Your task to perform on an android device: Empty the shopping cart on target. Search for razer nari on target, select the first entry, add it to the cart, then select checkout. Image 0: 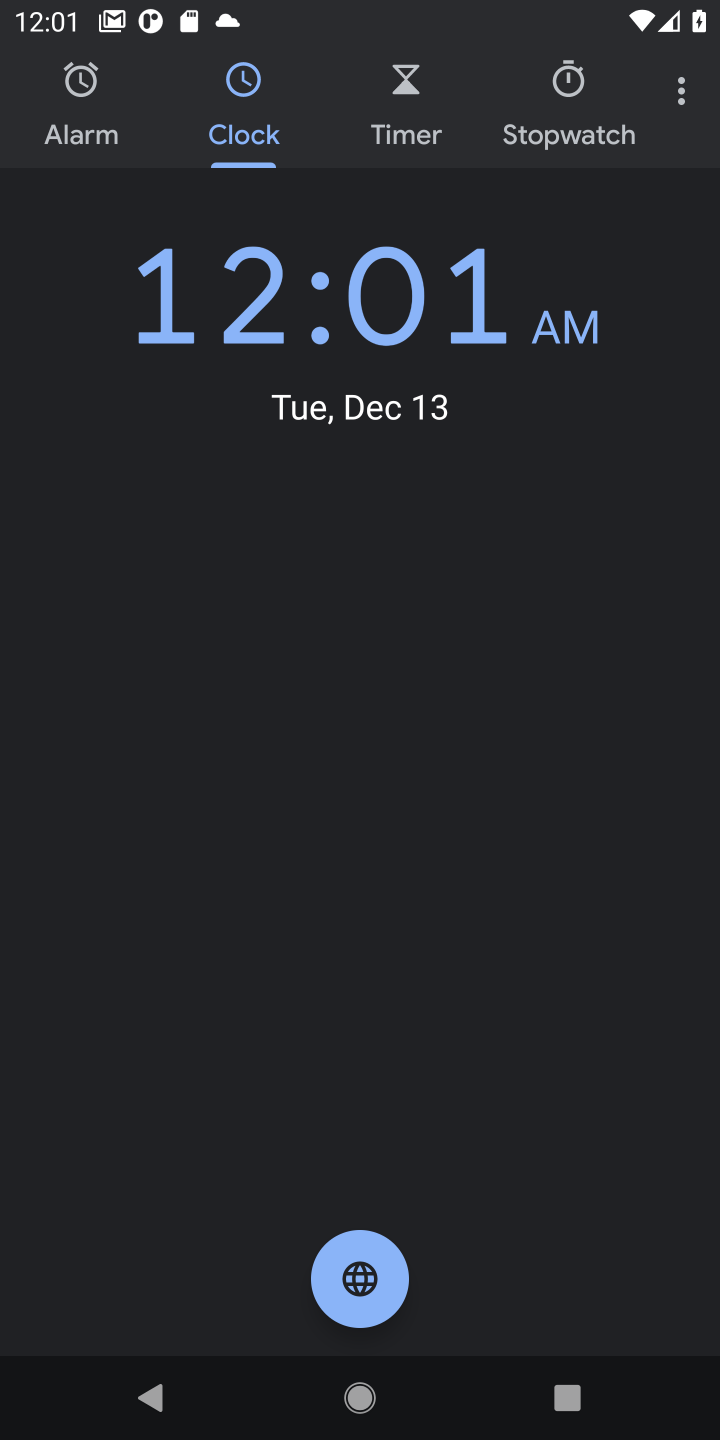
Step 0: press home button
Your task to perform on an android device: Empty the shopping cart on target. Search for razer nari on target, select the first entry, add it to the cart, then select checkout. Image 1: 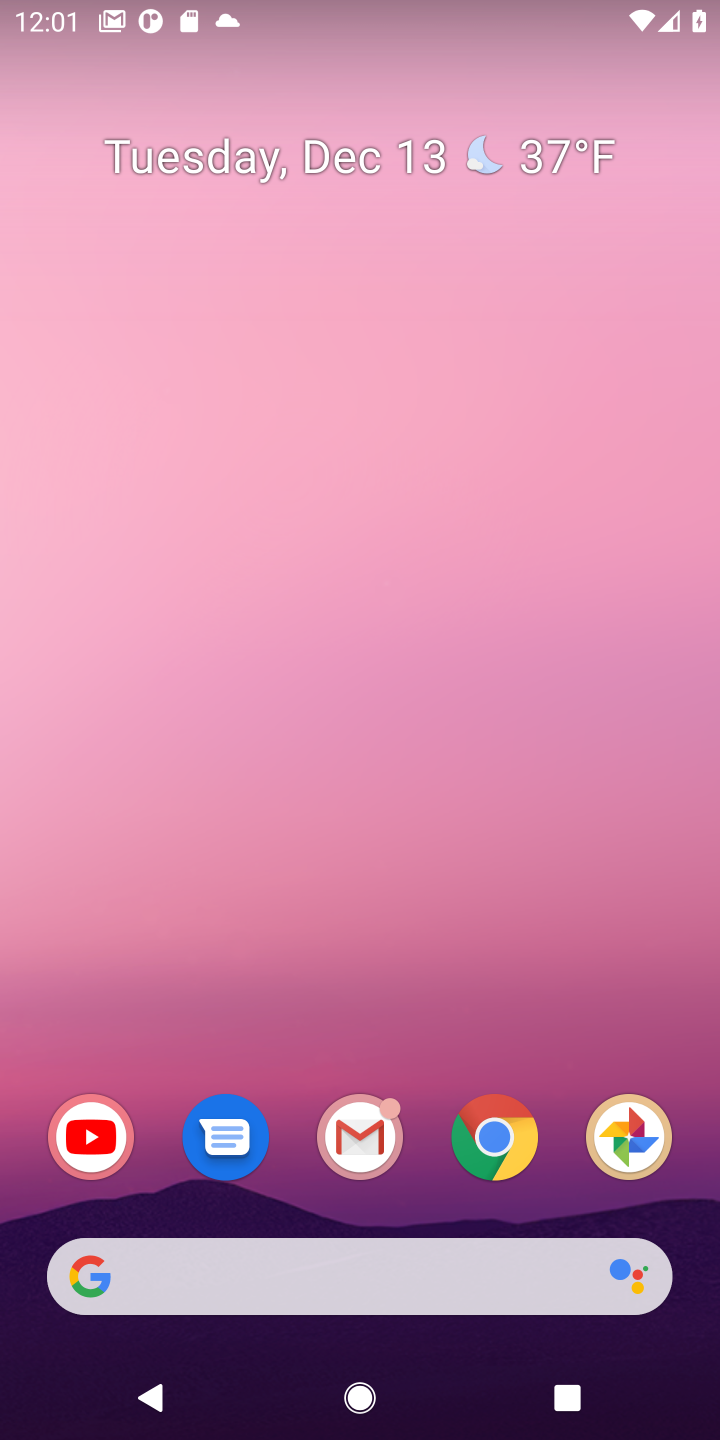
Step 1: click (458, 1255)
Your task to perform on an android device: Empty the shopping cart on target. Search for razer nari on target, select the first entry, add it to the cart, then select checkout. Image 2: 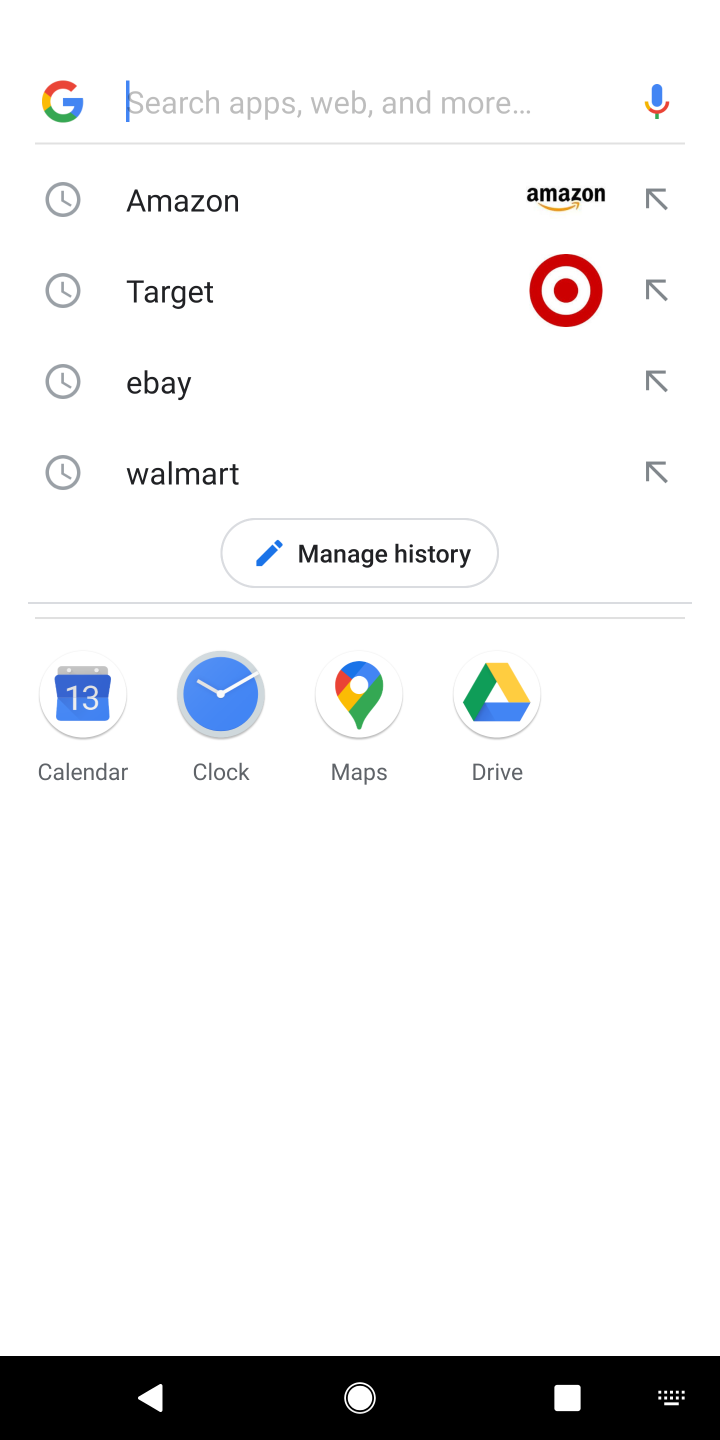
Step 2: click (224, 299)
Your task to perform on an android device: Empty the shopping cart on target. Search for razer nari on target, select the first entry, add it to the cart, then select checkout. Image 3: 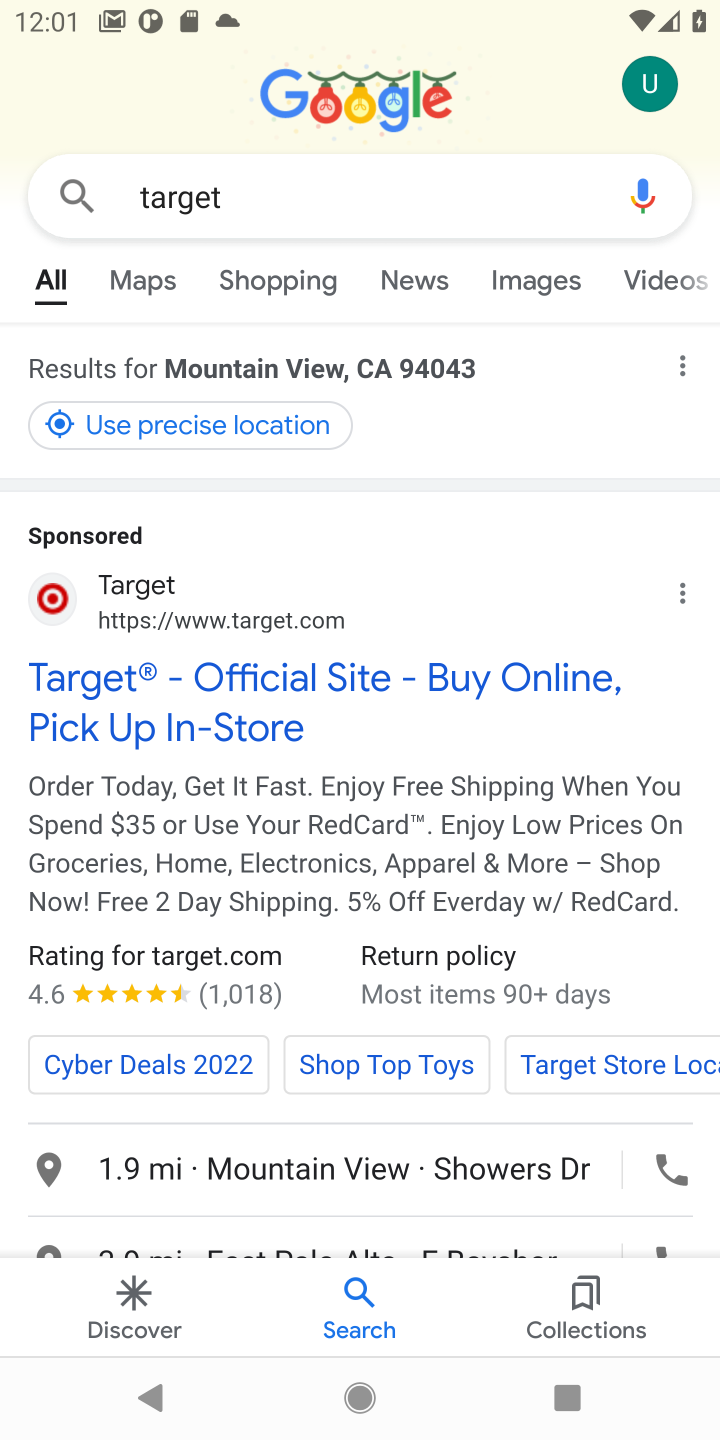
Step 3: click (89, 683)
Your task to perform on an android device: Empty the shopping cart on target. Search for razer nari on target, select the first entry, add it to the cart, then select checkout. Image 4: 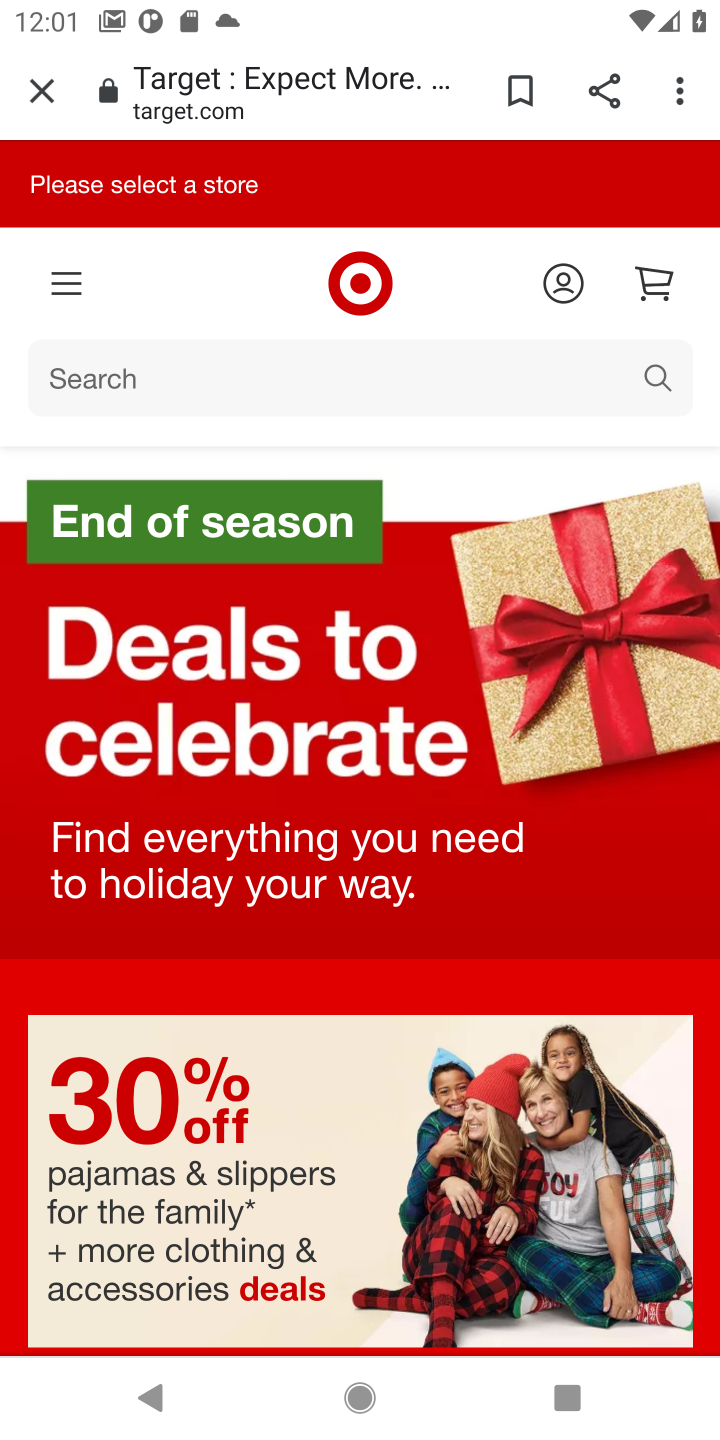
Step 4: click (169, 397)
Your task to perform on an android device: Empty the shopping cart on target. Search for razer nari on target, select the first entry, add it to the cart, then select checkout. Image 5: 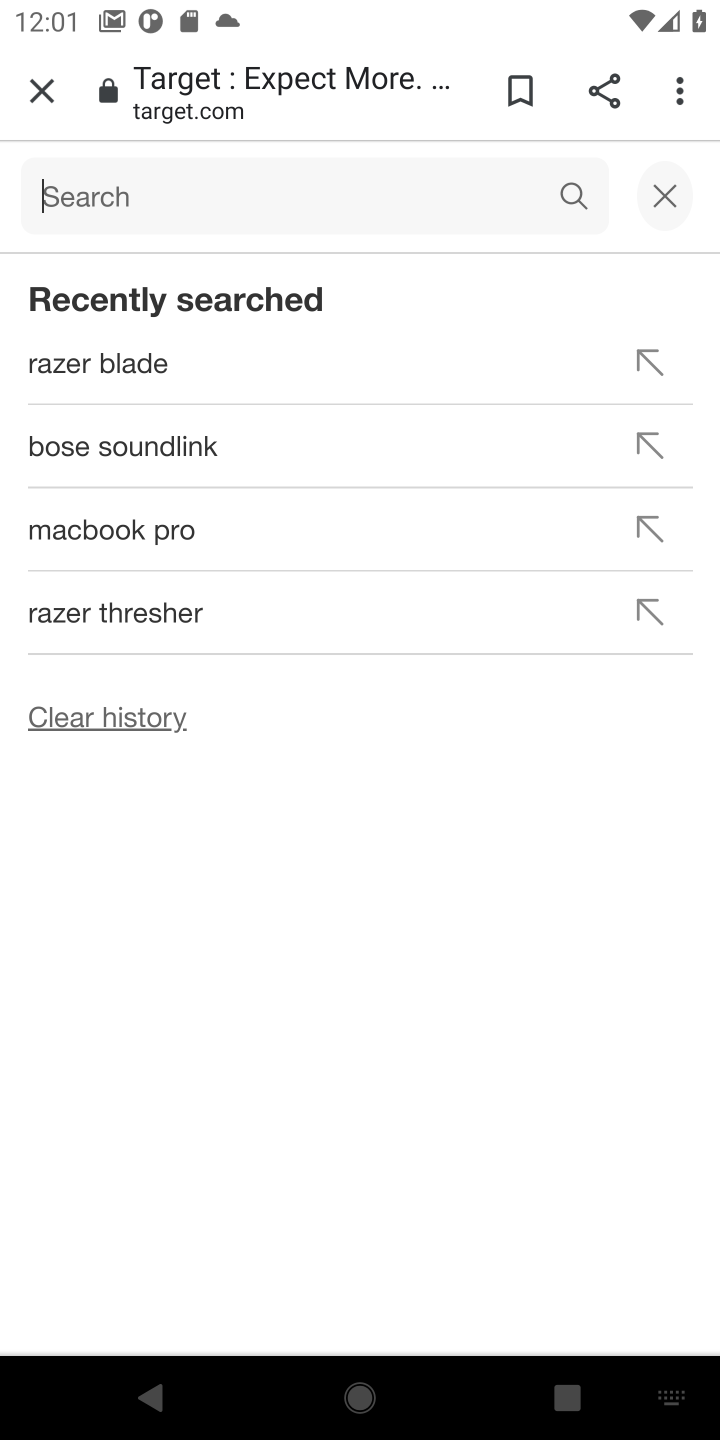
Step 5: type "razer nari"
Your task to perform on an android device: Empty the shopping cart on target. Search for razer nari on target, select the first entry, add it to the cart, then select checkout. Image 6: 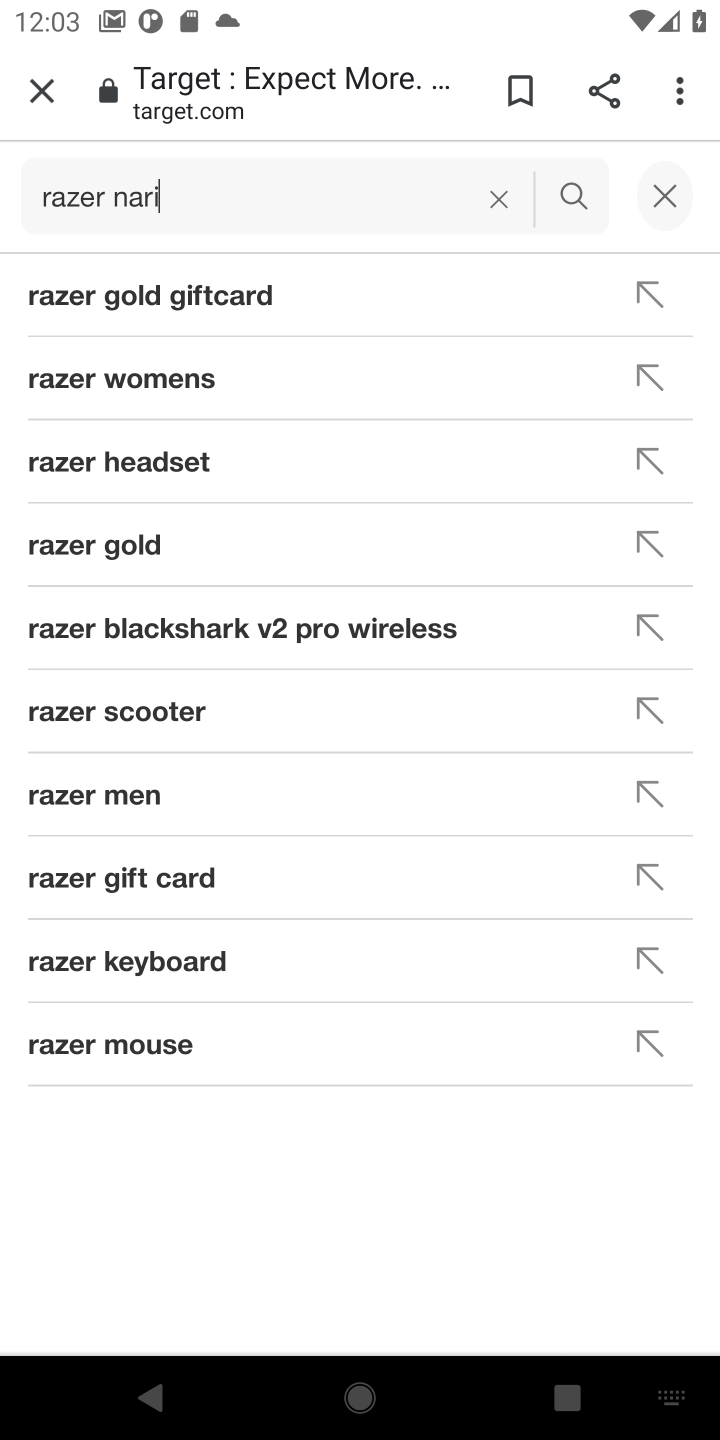
Step 6: click (585, 214)
Your task to perform on an android device: Empty the shopping cart on target. Search for razer nari on target, select the first entry, add it to the cart, then select checkout. Image 7: 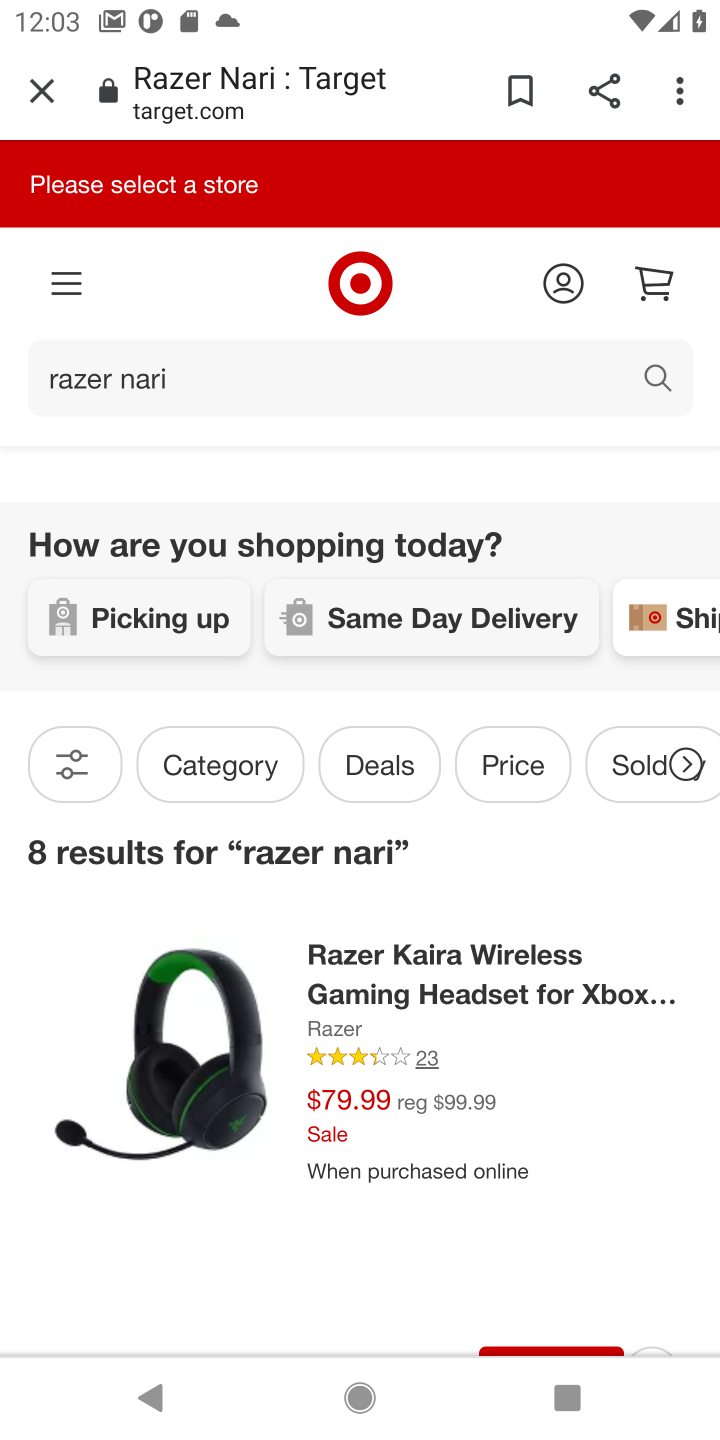
Step 7: click (424, 948)
Your task to perform on an android device: Empty the shopping cart on target. Search for razer nari on target, select the first entry, add it to the cart, then select checkout. Image 8: 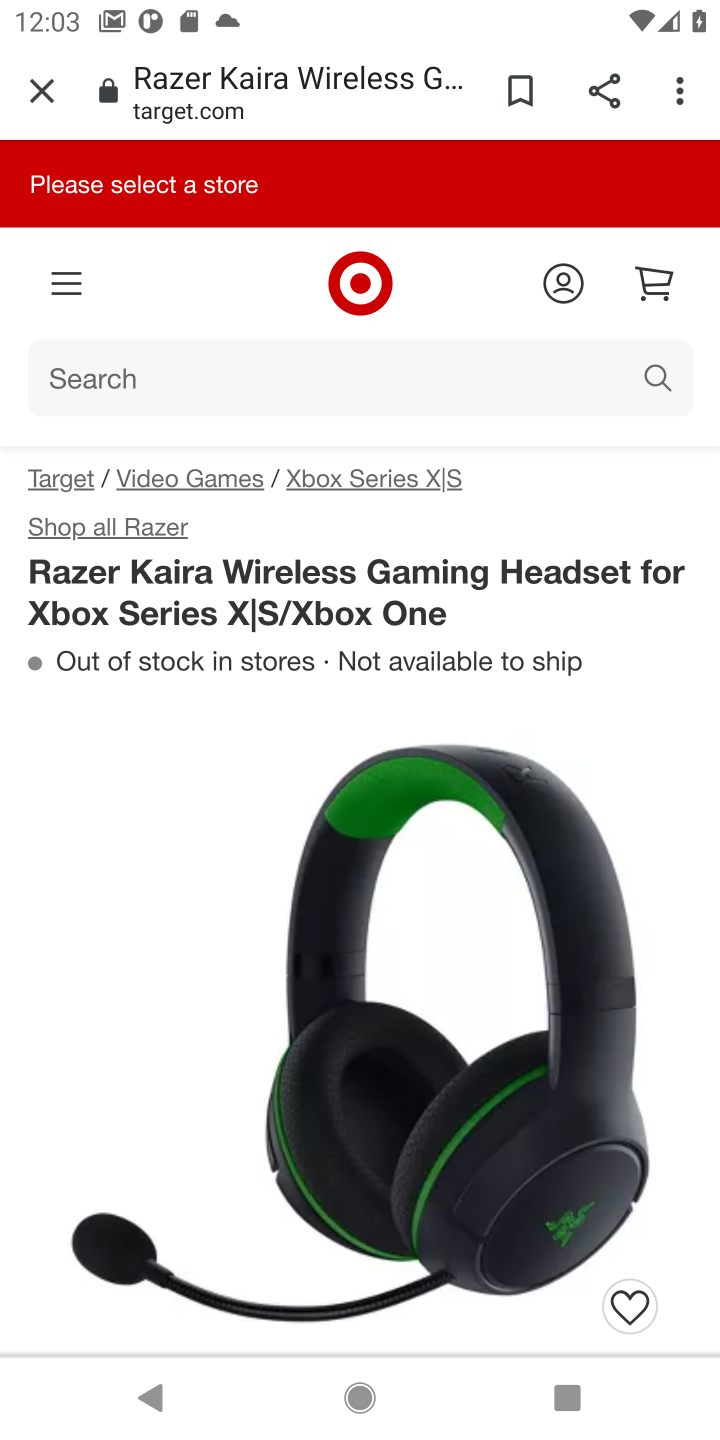
Step 8: drag from (208, 1044) to (198, 555)
Your task to perform on an android device: Empty the shopping cart on target. Search for razer nari on target, select the first entry, add it to the cart, then select checkout. Image 9: 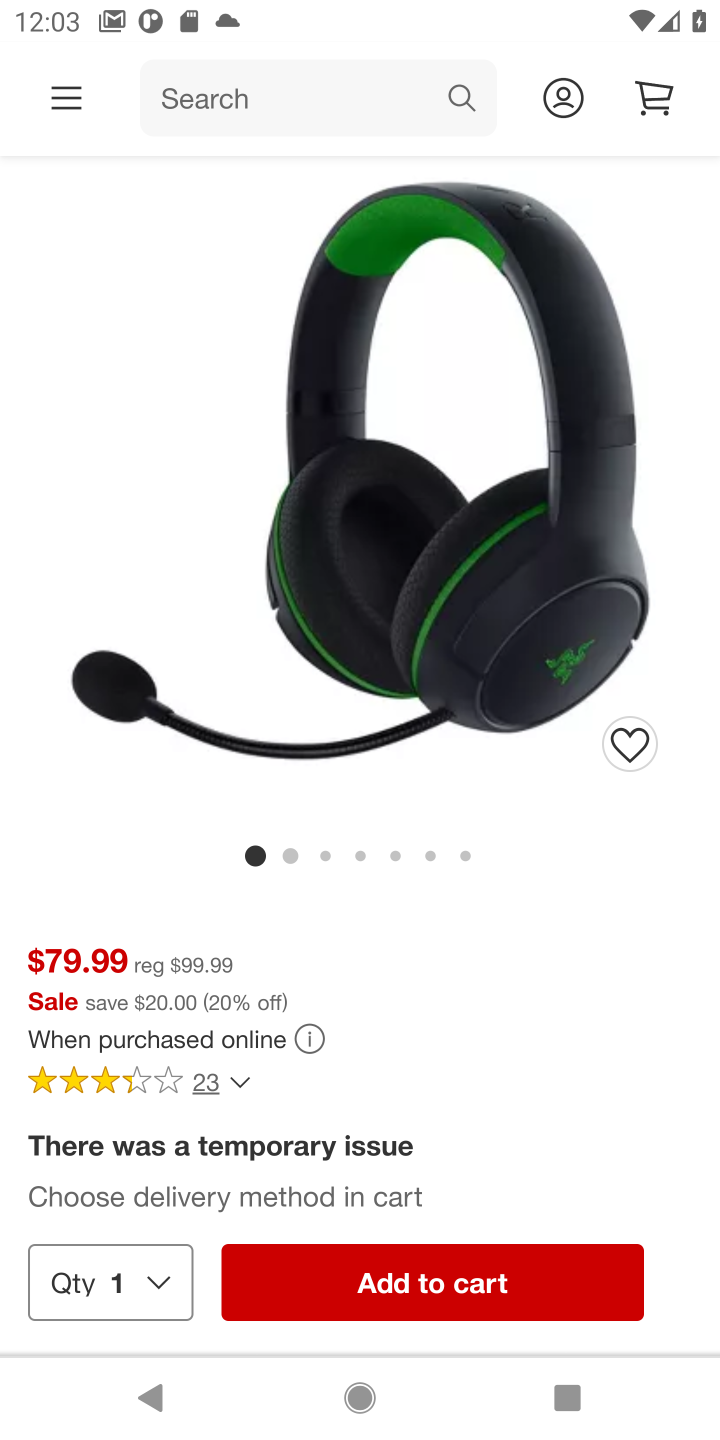
Step 9: click (533, 1286)
Your task to perform on an android device: Empty the shopping cart on target. Search for razer nari on target, select the first entry, add it to the cart, then select checkout. Image 10: 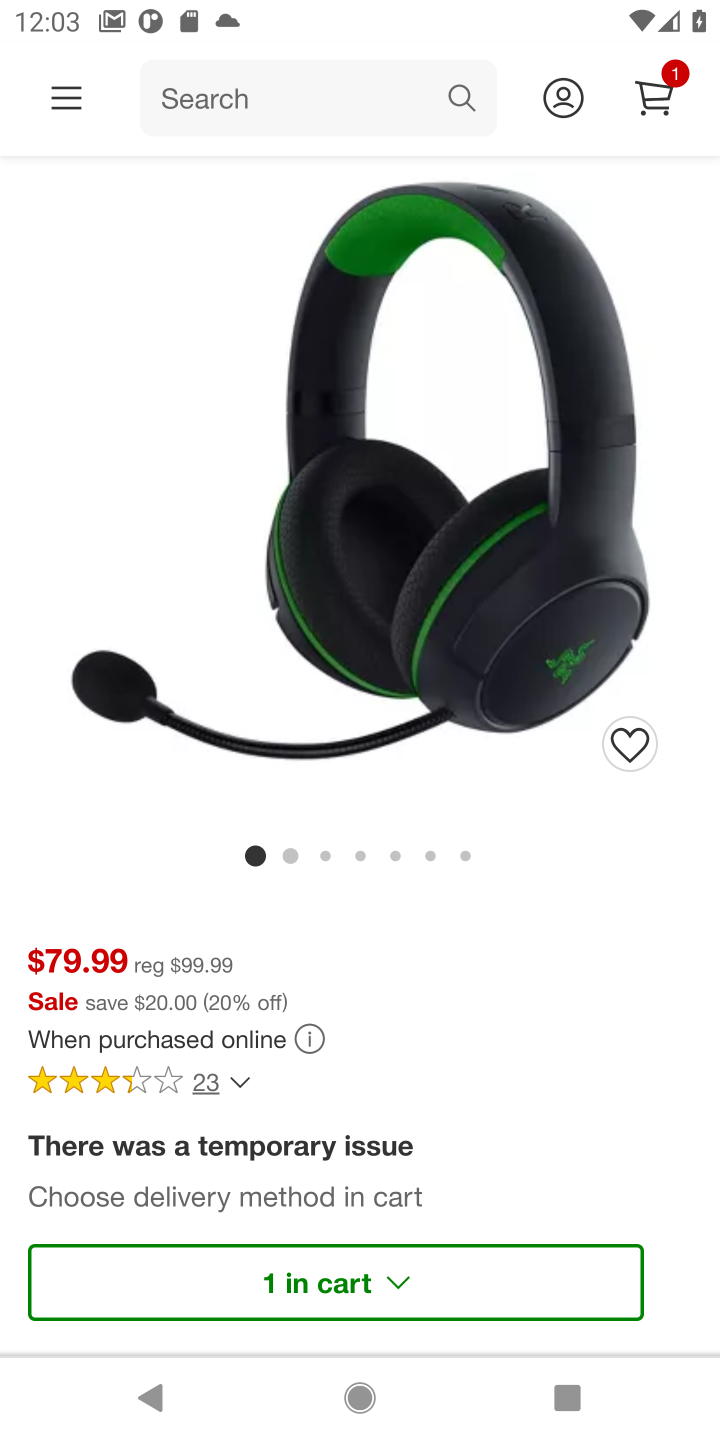
Step 10: task complete